Your task to perform on an android device: Open Wikipedia Image 0: 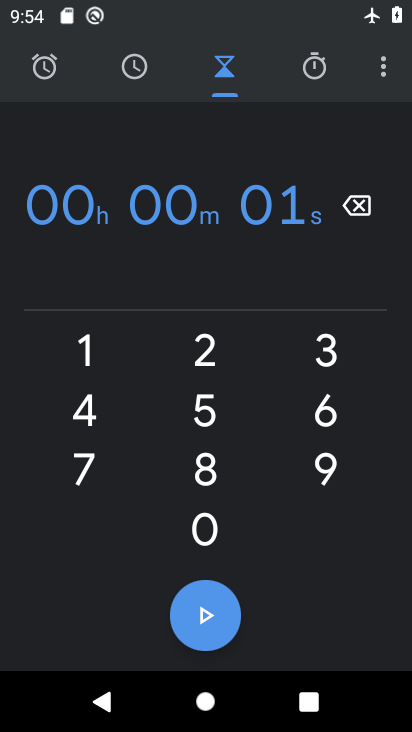
Step 0: press home button
Your task to perform on an android device: Open Wikipedia Image 1: 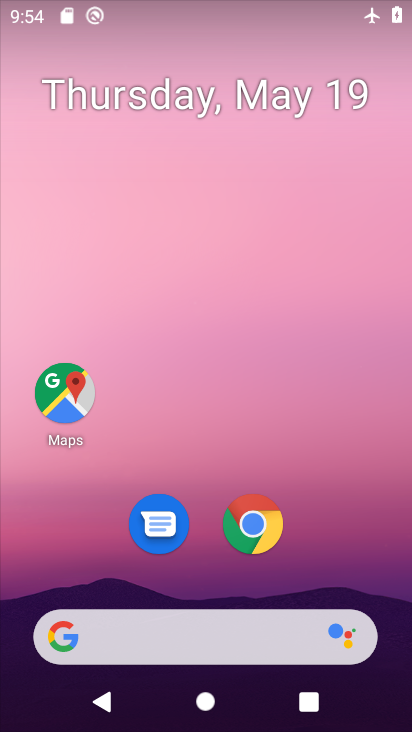
Step 1: click (250, 529)
Your task to perform on an android device: Open Wikipedia Image 2: 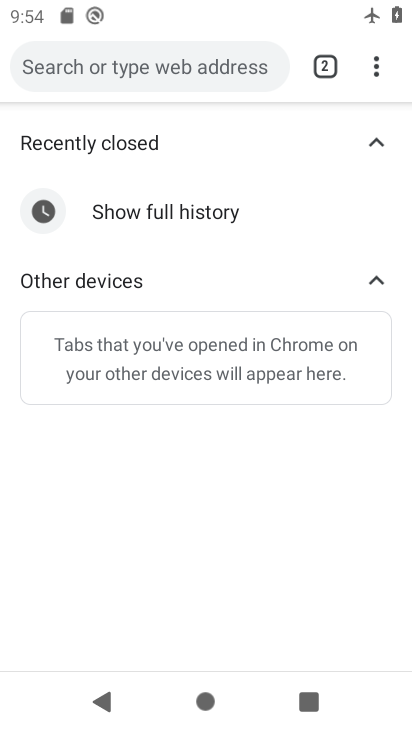
Step 2: click (376, 63)
Your task to perform on an android device: Open Wikipedia Image 3: 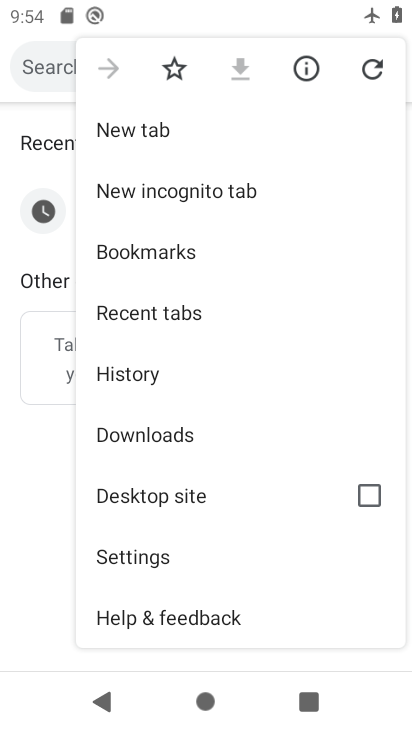
Step 3: click (309, 131)
Your task to perform on an android device: Open Wikipedia Image 4: 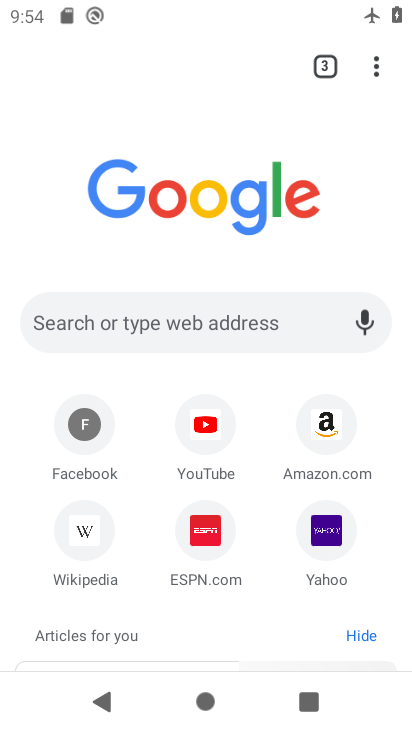
Step 4: click (91, 531)
Your task to perform on an android device: Open Wikipedia Image 5: 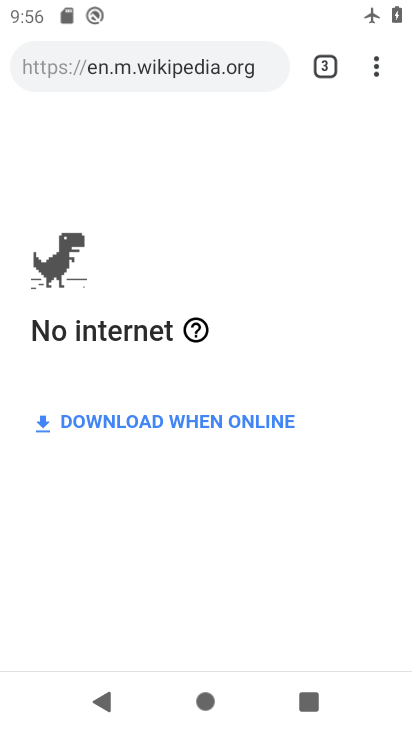
Step 5: task complete